Your task to perform on an android device: Check the news Image 0: 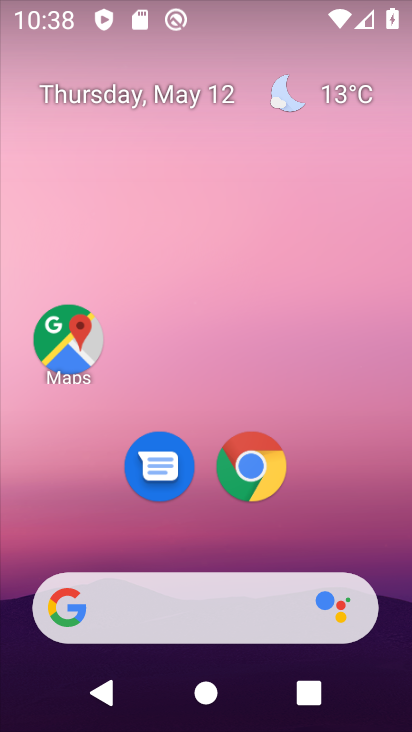
Step 0: drag from (364, 541) to (335, 135)
Your task to perform on an android device: Check the news Image 1: 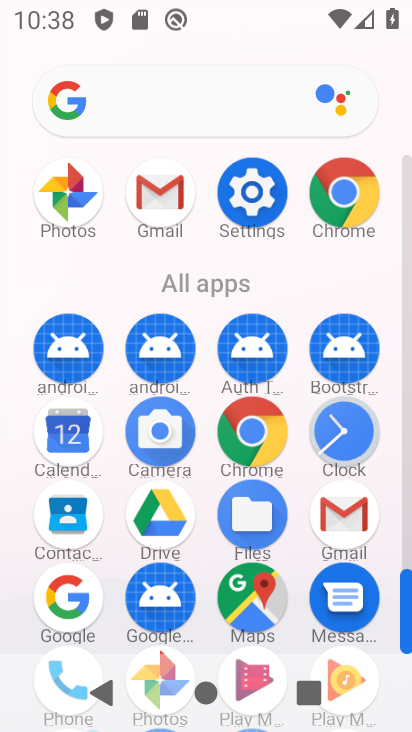
Step 1: click (340, 194)
Your task to perform on an android device: Check the news Image 2: 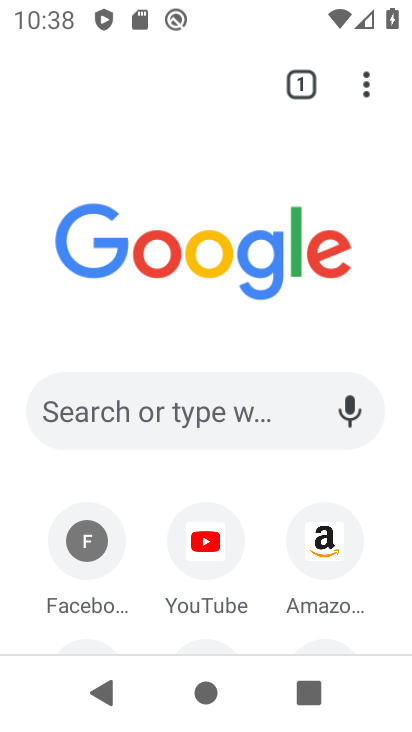
Step 2: click (224, 425)
Your task to perform on an android device: Check the news Image 3: 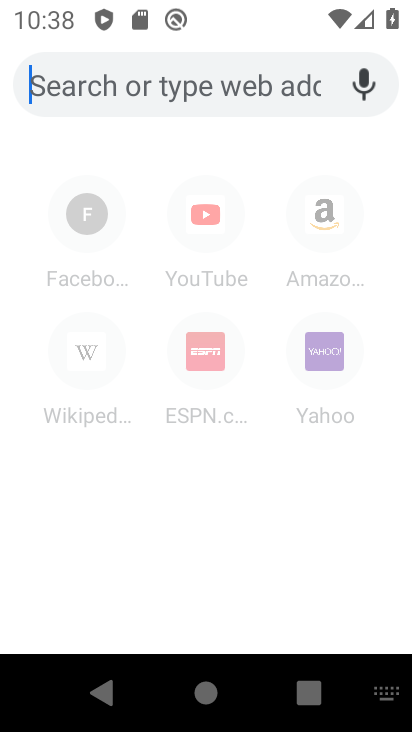
Step 3: type "check the news"
Your task to perform on an android device: Check the news Image 4: 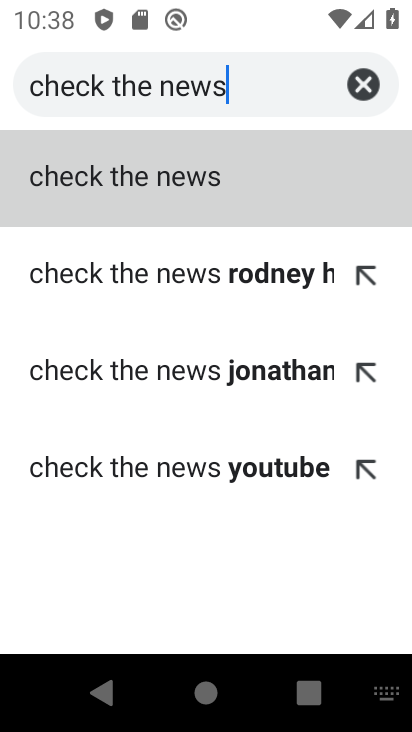
Step 4: click (158, 198)
Your task to perform on an android device: Check the news Image 5: 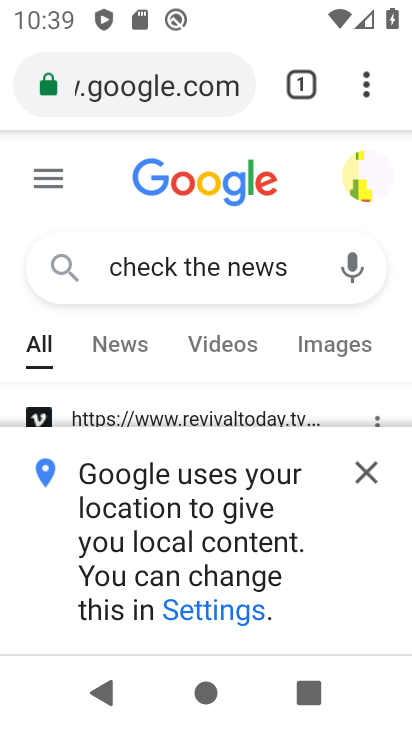
Step 5: click (363, 480)
Your task to perform on an android device: Check the news Image 6: 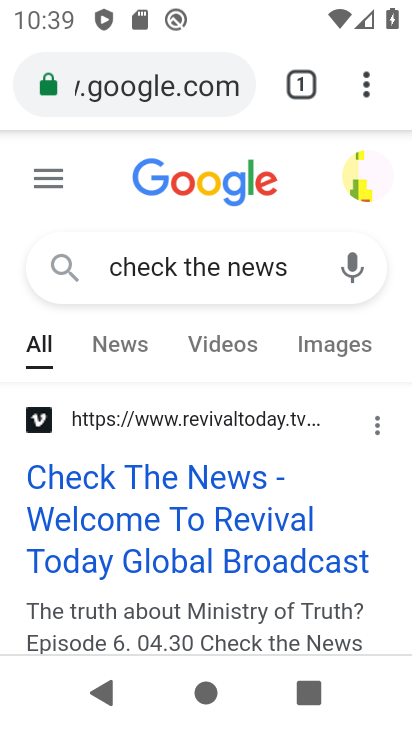
Step 6: click (264, 557)
Your task to perform on an android device: Check the news Image 7: 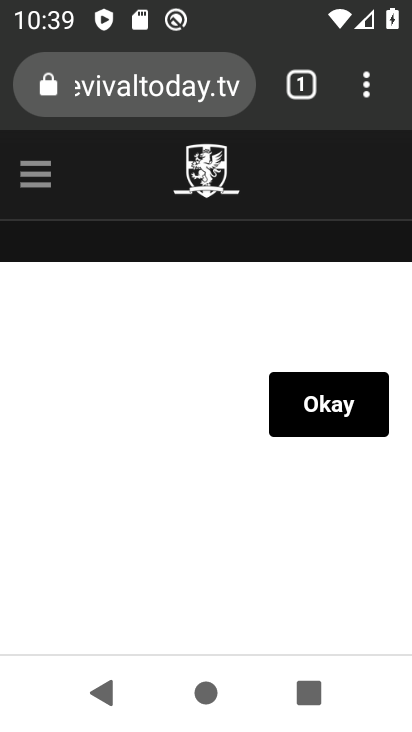
Step 7: task complete